Your task to perform on an android device: turn off location Image 0: 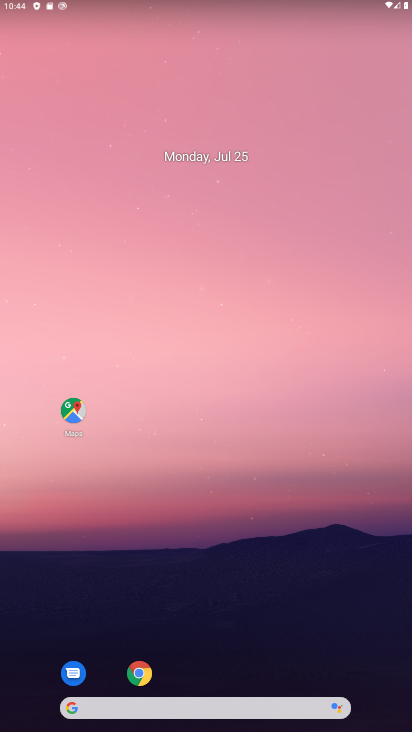
Step 0: press home button
Your task to perform on an android device: turn off location Image 1: 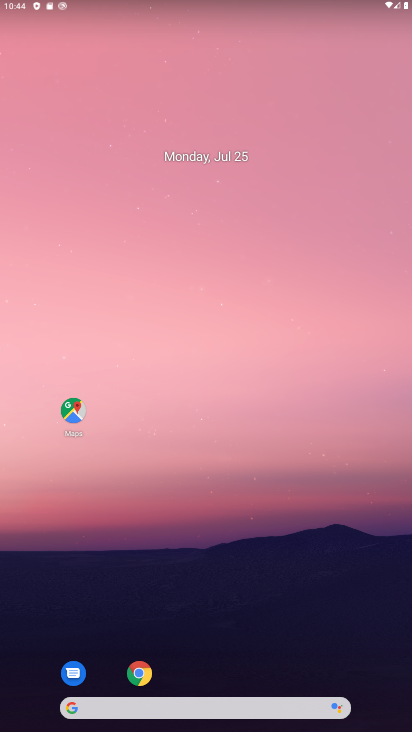
Step 1: click (236, 18)
Your task to perform on an android device: turn off location Image 2: 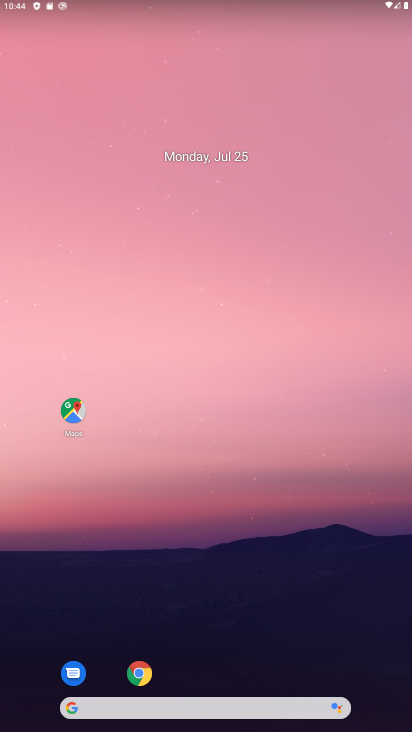
Step 2: drag from (201, 101) to (201, 44)
Your task to perform on an android device: turn off location Image 3: 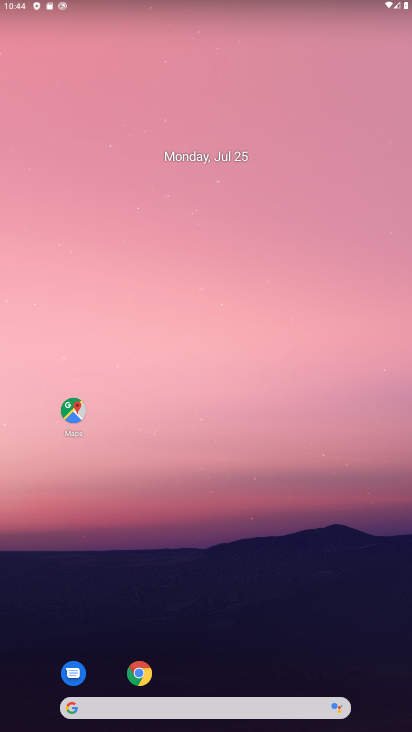
Step 3: drag from (255, 556) to (177, 47)
Your task to perform on an android device: turn off location Image 4: 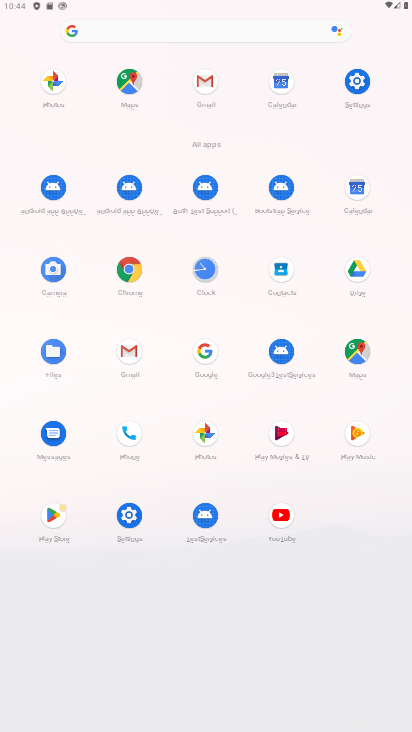
Step 4: click (361, 76)
Your task to perform on an android device: turn off location Image 5: 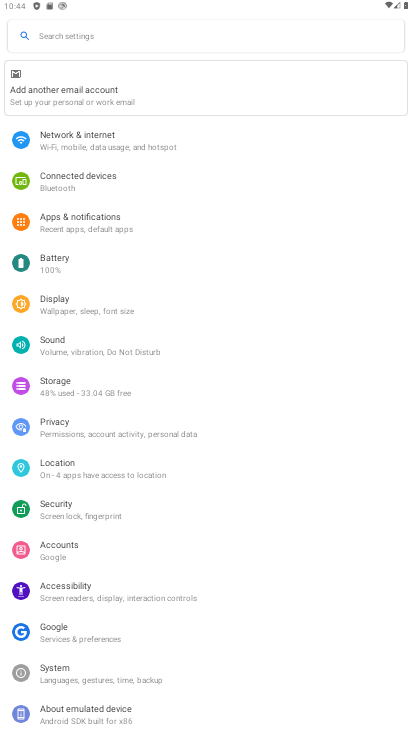
Step 5: click (51, 464)
Your task to perform on an android device: turn off location Image 6: 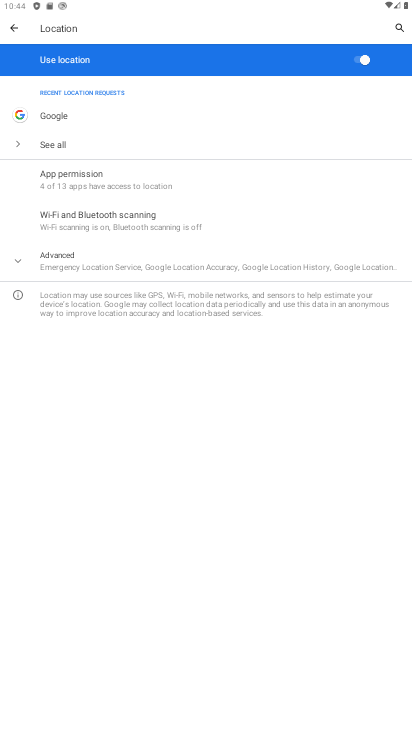
Step 6: click (367, 57)
Your task to perform on an android device: turn off location Image 7: 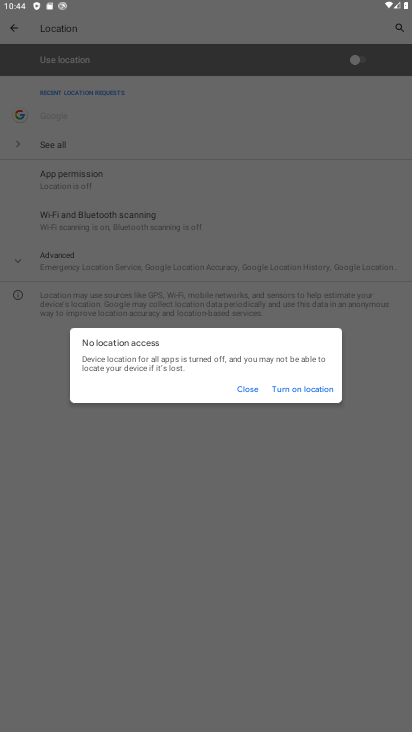
Step 7: click (251, 387)
Your task to perform on an android device: turn off location Image 8: 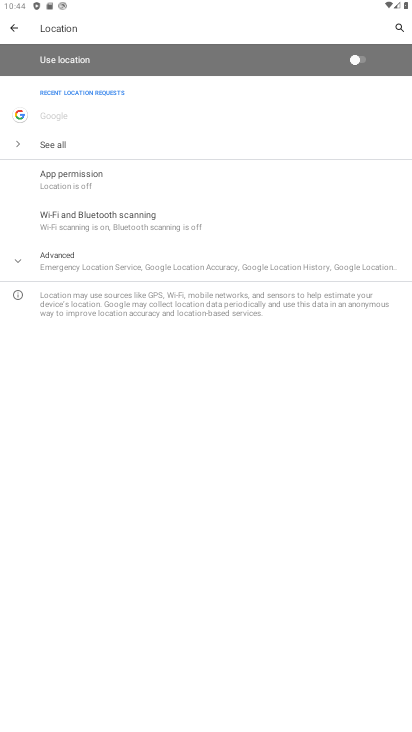
Step 8: task complete